Your task to perform on an android device: check battery use Image 0: 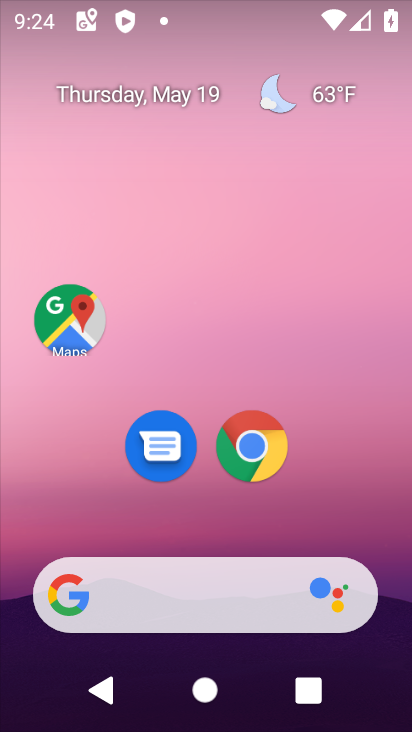
Step 0: drag from (213, 529) to (261, 32)
Your task to perform on an android device: check battery use Image 1: 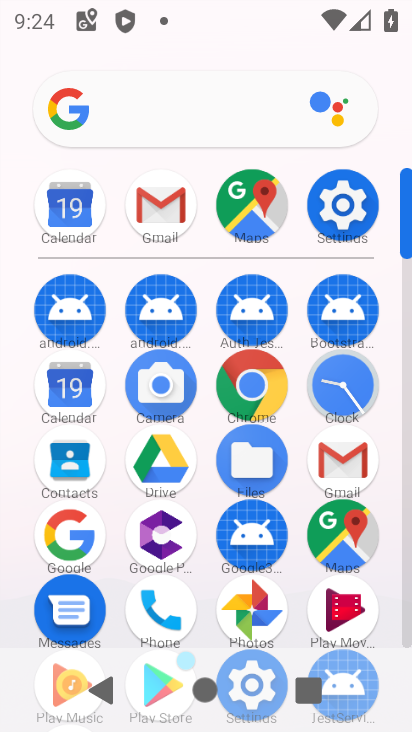
Step 1: drag from (214, 561) to (220, 396)
Your task to perform on an android device: check battery use Image 2: 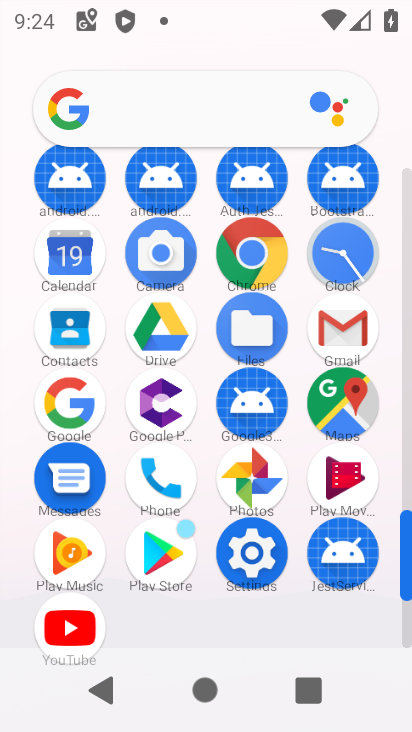
Step 2: click (254, 563)
Your task to perform on an android device: check battery use Image 3: 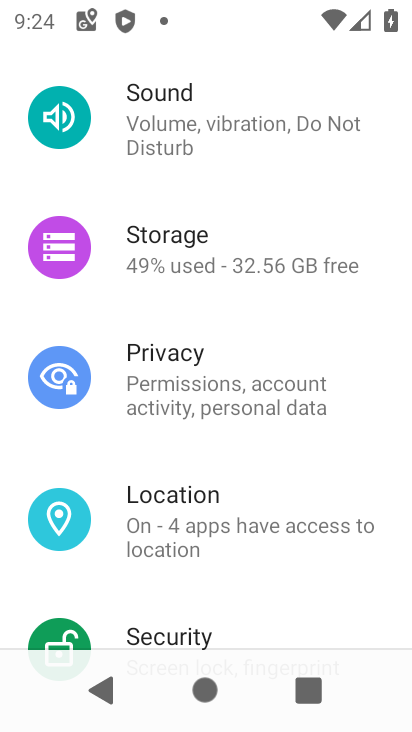
Step 3: drag from (190, 207) to (126, 657)
Your task to perform on an android device: check battery use Image 4: 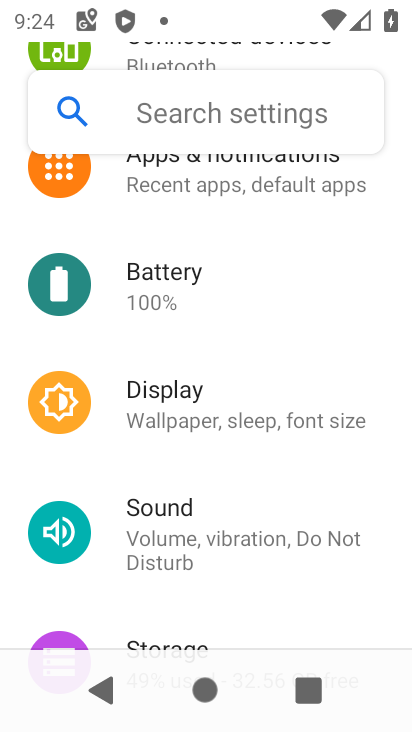
Step 4: click (199, 301)
Your task to perform on an android device: check battery use Image 5: 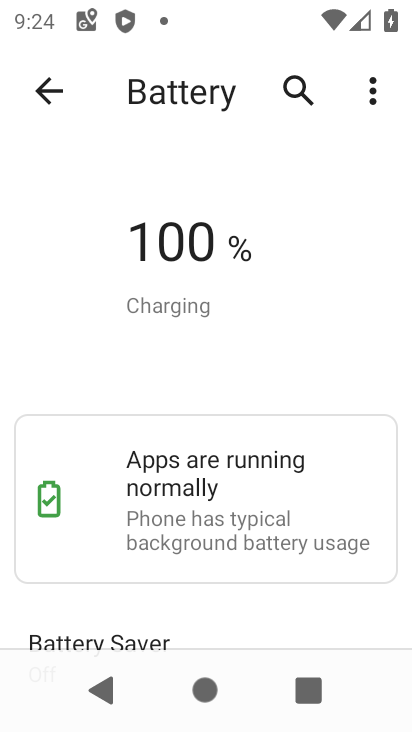
Step 5: click (371, 86)
Your task to perform on an android device: check battery use Image 6: 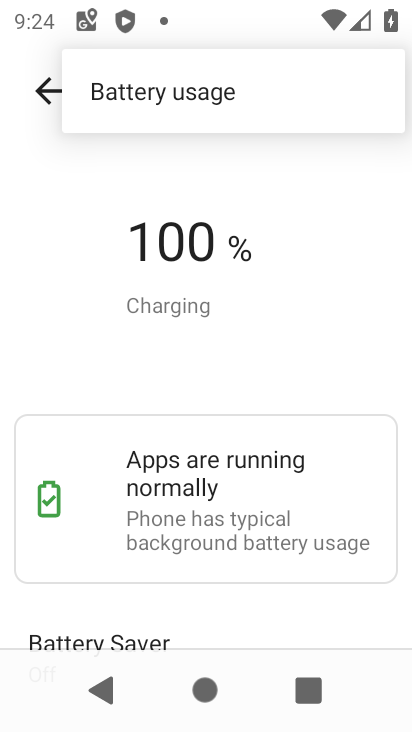
Step 6: click (222, 86)
Your task to perform on an android device: check battery use Image 7: 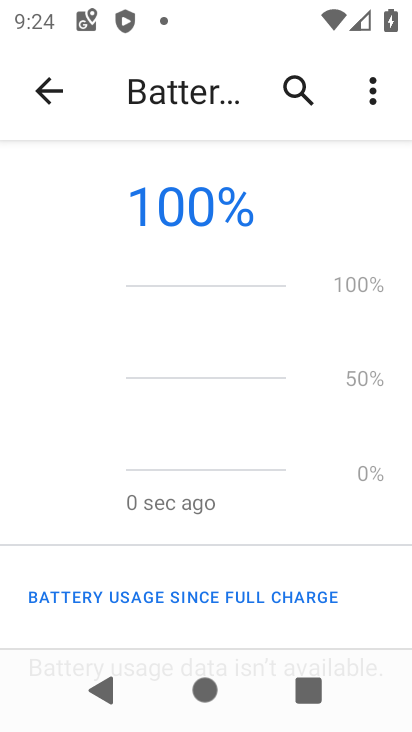
Step 7: task complete